Your task to perform on an android device: Go to wifi settings Image 0: 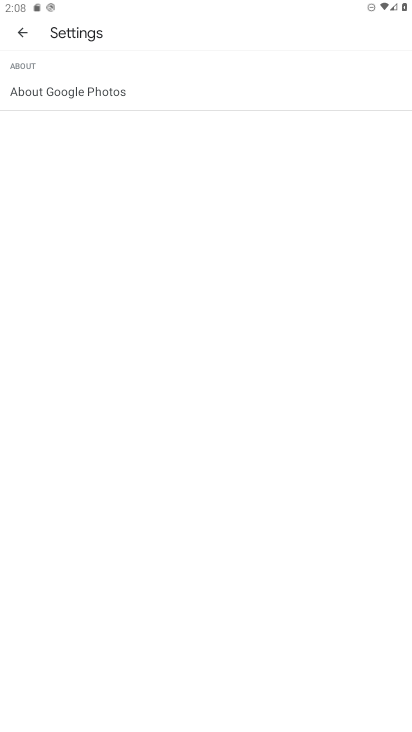
Step 0: press home button
Your task to perform on an android device: Go to wifi settings Image 1: 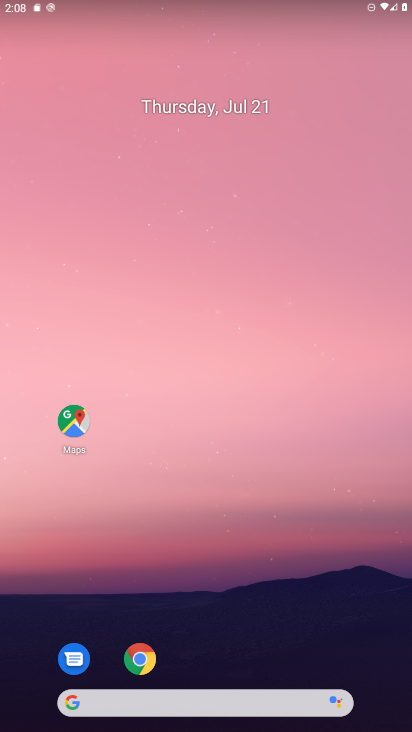
Step 1: drag from (16, 546) to (256, 58)
Your task to perform on an android device: Go to wifi settings Image 2: 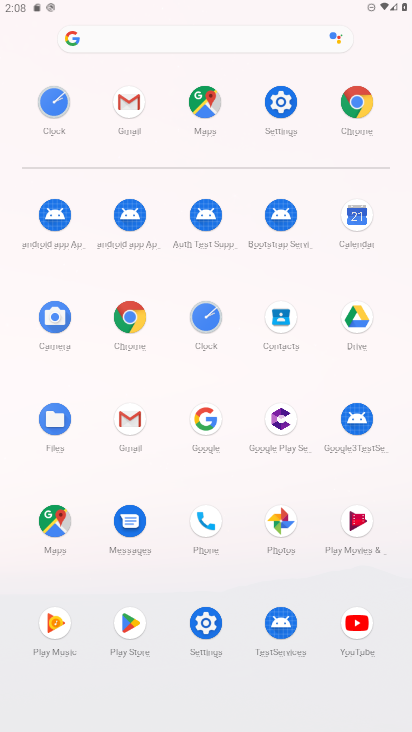
Step 2: click (281, 113)
Your task to perform on an android device: Go to wifi settings Image 3: 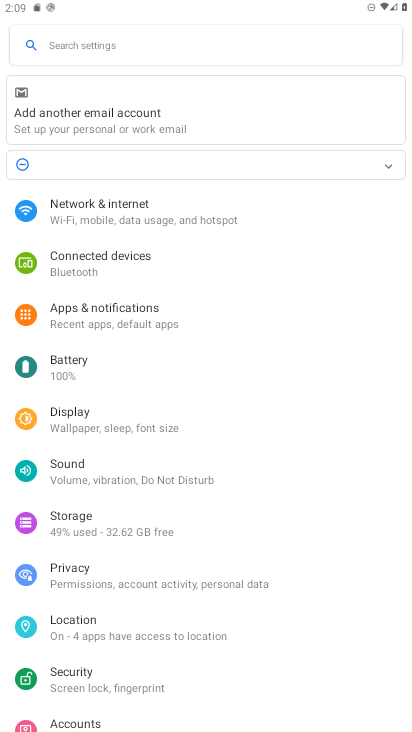
Step 3: click (108, 215)
Your task to perform on an android device: Go to wifi settings Image 4: 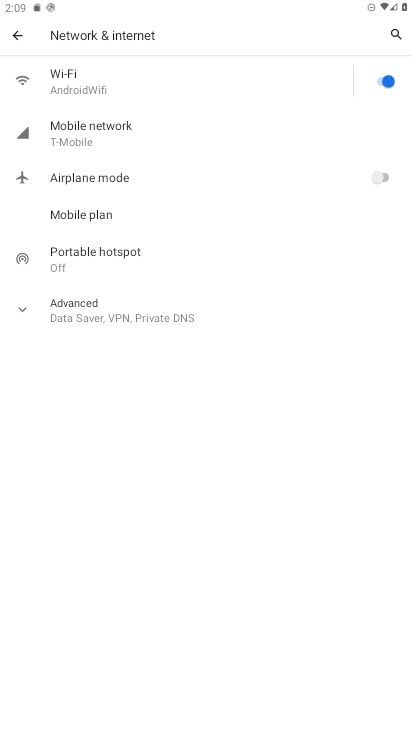
Step 4: click (105, 93)
Your task to perform on an android device: Go to wifi settings Image 5: 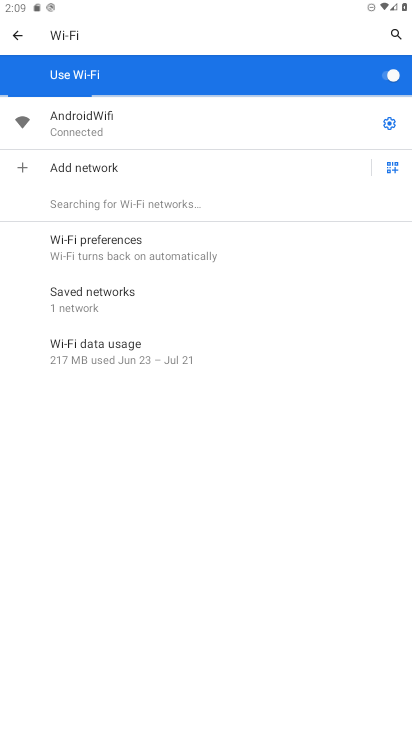
Step 5: click (394, 125)
Your task to perform on an android device: Go to wifi settings Image 6: 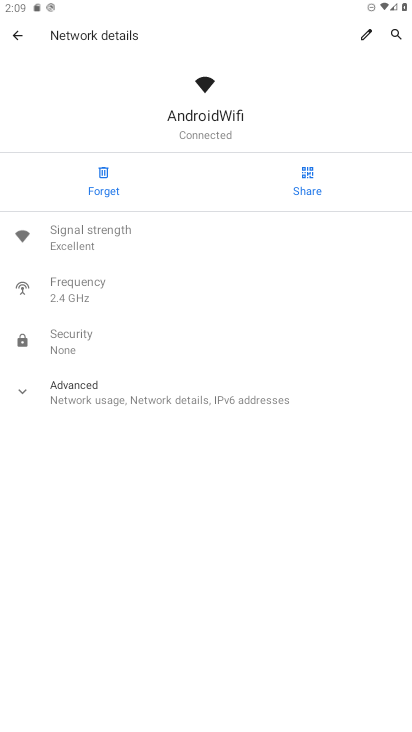
Step 6: task complete